Your task to perform on an android device: Show me popular videos on Youtube Image 0: 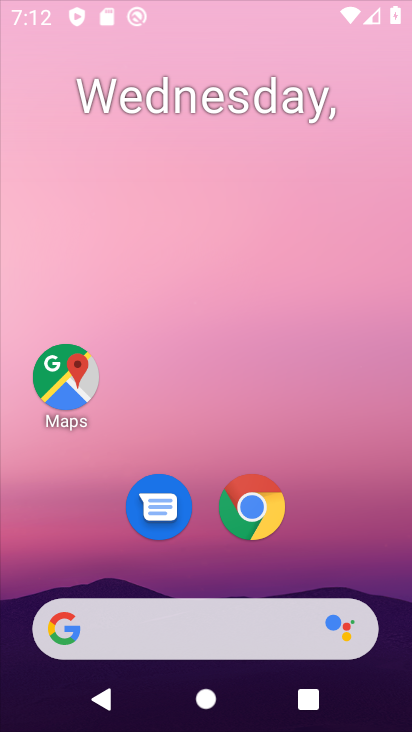
Step 0: drag from (220, 377) to (187, 171)
Your task to perform on an android device: Show me popular videos on Youtube Image 1: 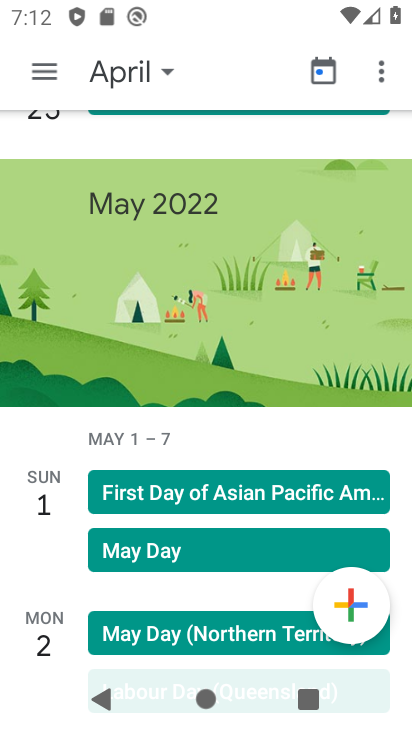
Step 1: press home button
Your task to perform on an android device: Show me popular videos on Youtube Image 2: 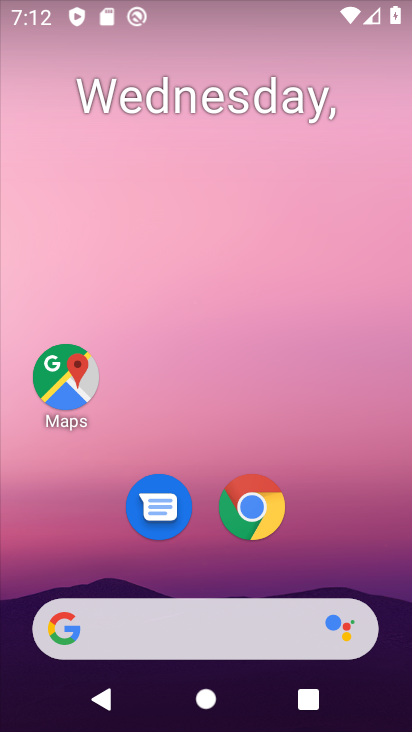
Step 2: drag from (255, 641) to (217, 209)
Your task to perform on an android device: Show me popular videos on Youtube Image 3: 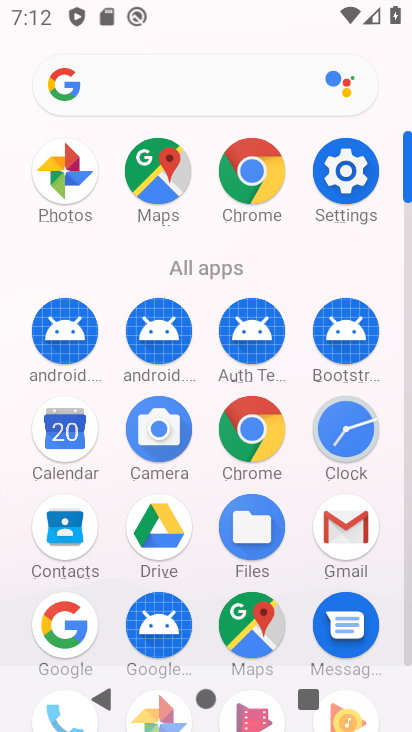
Step 3: drag from (226, 541) to (249, 309)
Your task to perform on an android device: Show me popular videos on Youtube Image 4: 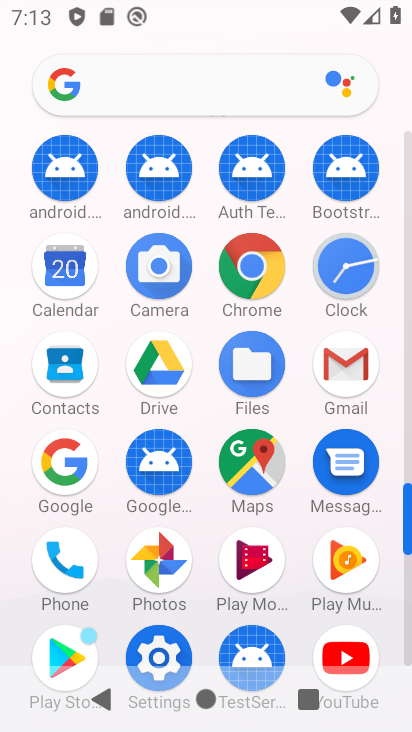
Step 4: click (328, 644)
Your task to perform on an android device: Show me popular videos on Youtube Image 5: 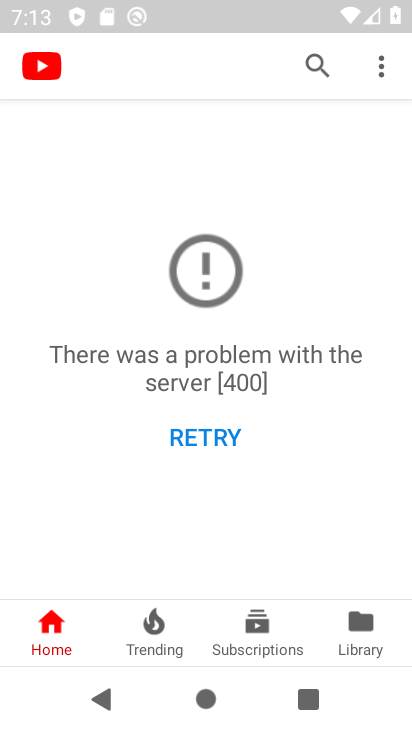
Step 5: click (318, 77)
Your task to perform on an android device: Show me popular videos on Youtube Image 6: 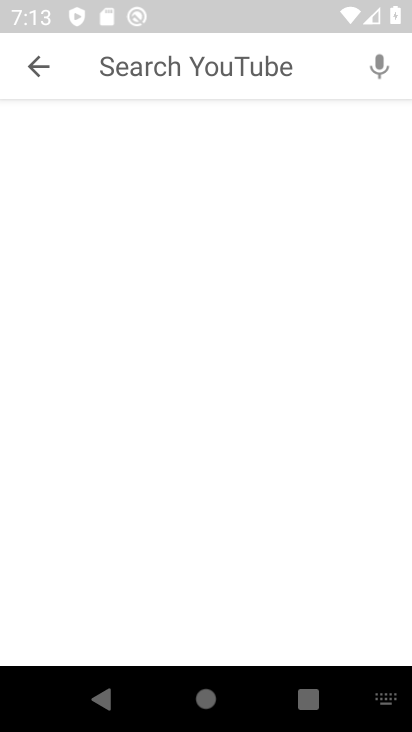
Step 6: click (381, 698)
Your task to perform on an android device: Show me popular videos on Youtube Image 7: 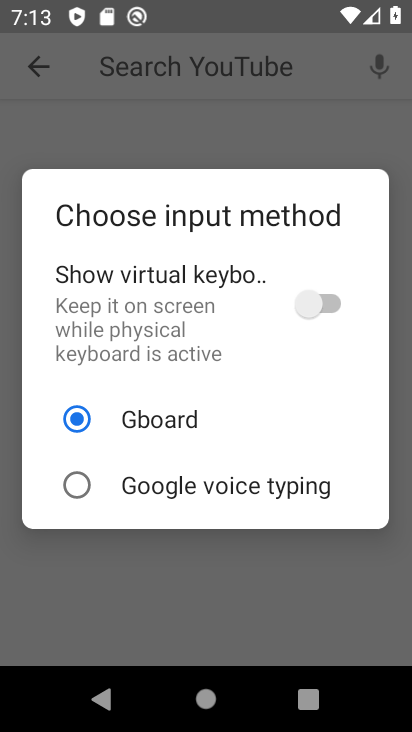
Step 7: click (337, 306)
Your task to perform on an android device: Show me popular videos on Youtube Image 8: 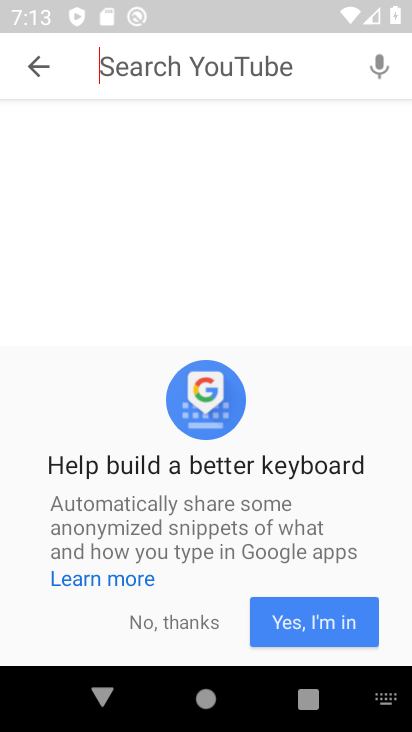
Step 8: click (284, 629)
Your task to perform on an android device: Show me popular videos on Youtube Image 9: 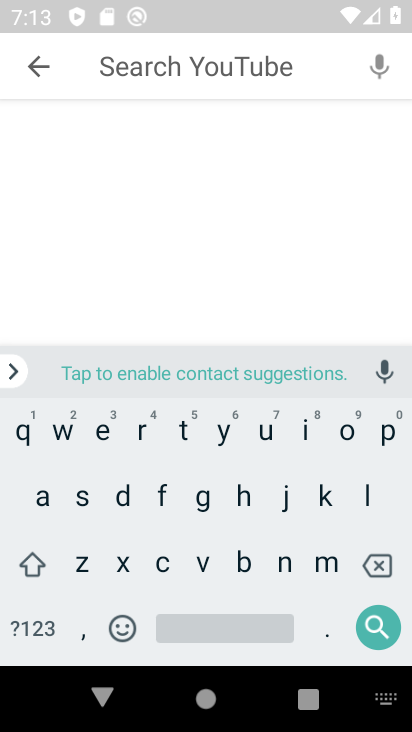
Step 9: click (383, 428)
Your task to perform on an android device: Show me popular videos on Youtube Image 10: 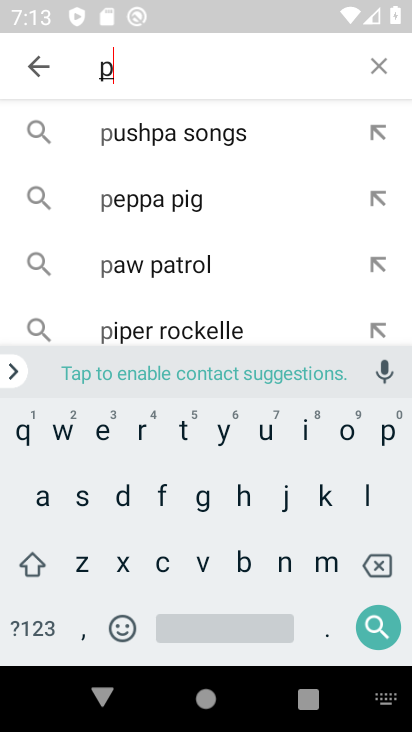
Step 10: click (343, 435)
Your task to perform on an android device: Show me popular videos on Youtube Image 11: 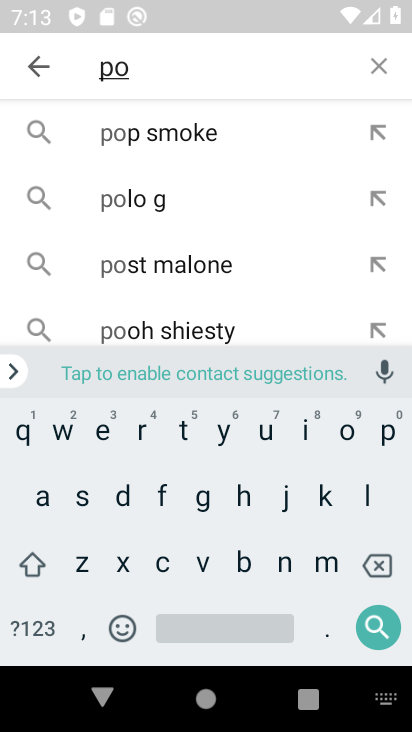
Step 11: click (380, 439)
Your task to perform on an android device: Show me popular videos on Youtube Image 12: 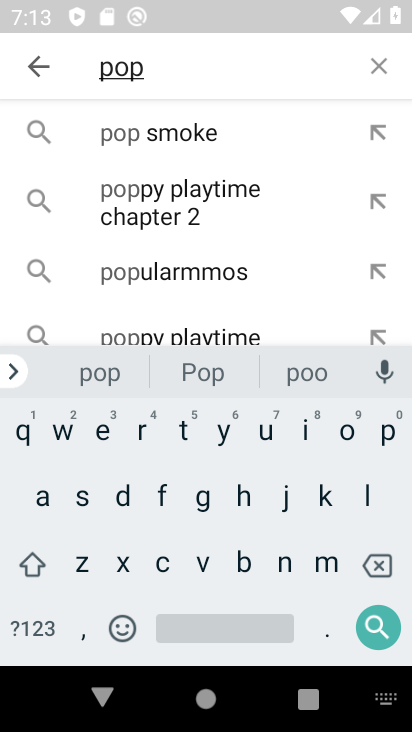
Step 12: click (265, 428)
Your task to perform on an android device: Show me popular videos on Youtube Image 13: 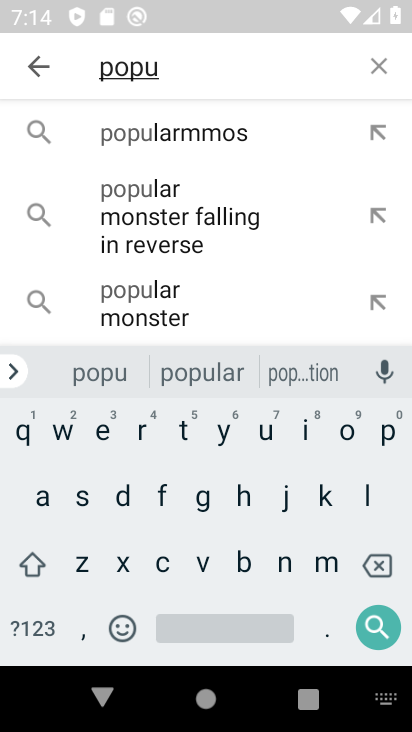
Step 13: click (368, 497)
Your task to perform on an android device: Show me popular videos on Youtube Image 14: 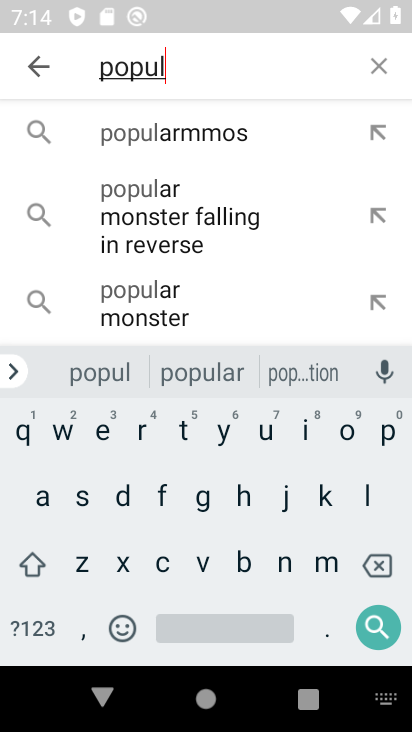
Step 14: click (41, 492)
Your task to perform on an android device: Show me popular videos on Youtube Image 15: 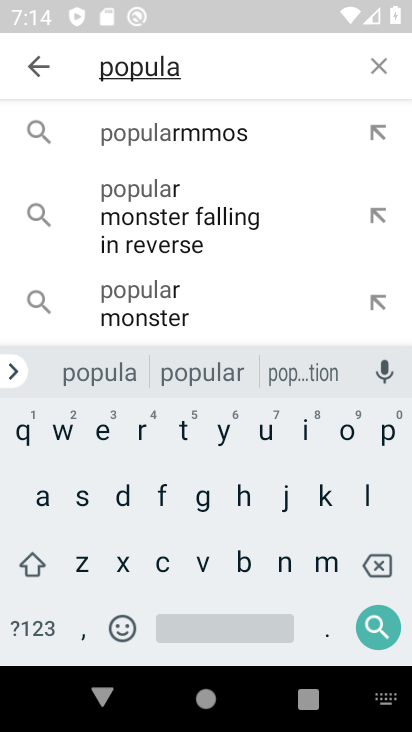
Step 15: click (190, 379)
Your task to perform on an android device: Show me popular videos on Youtube Image 16: 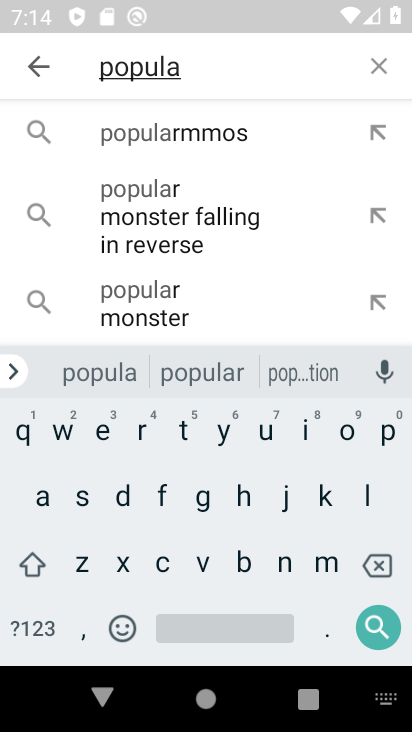
Step 16: click (136, 432)
Your task to perform on an android device: Show me popular videos on Youtube Image 17: 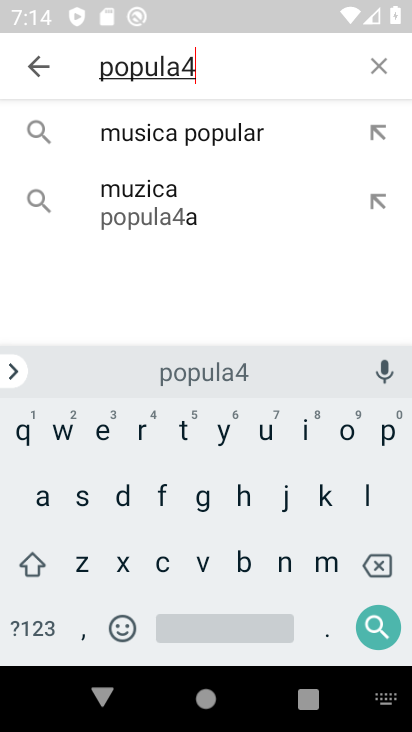
Step 17: click (374, 564)
Your task to perform on an android device: Show me popular videos on Youtube Image 18: 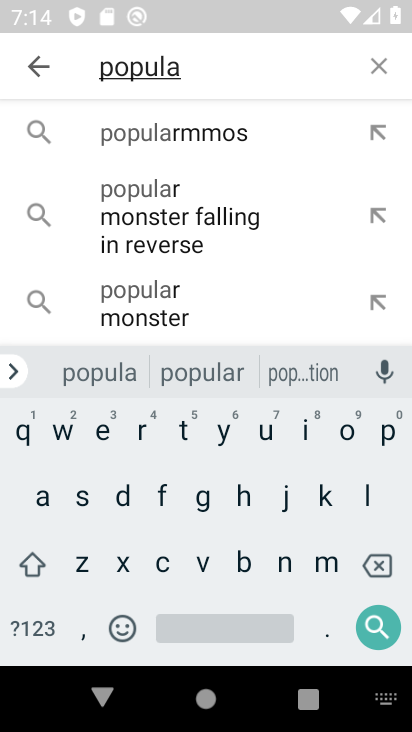
Step 18: click (141, 437)
Your task to perform on an android device: Show me popular videos on Youtube Image 19: 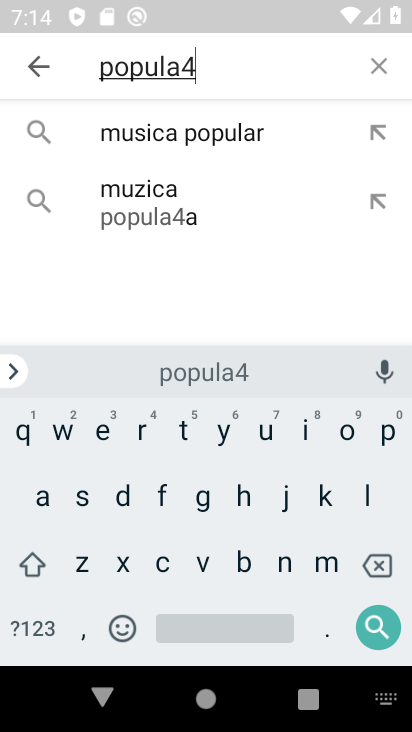
Step 19: click (385, 565)
Your task to perform on an android device: Show me popular videos on Youtube Image 20: 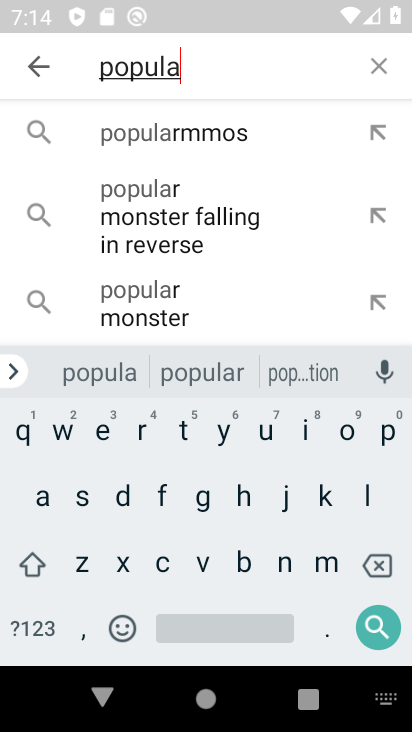
Step 20: click (140, 443)
Your task to perform on an android device: Show me popular videos on Youtube Image 21: 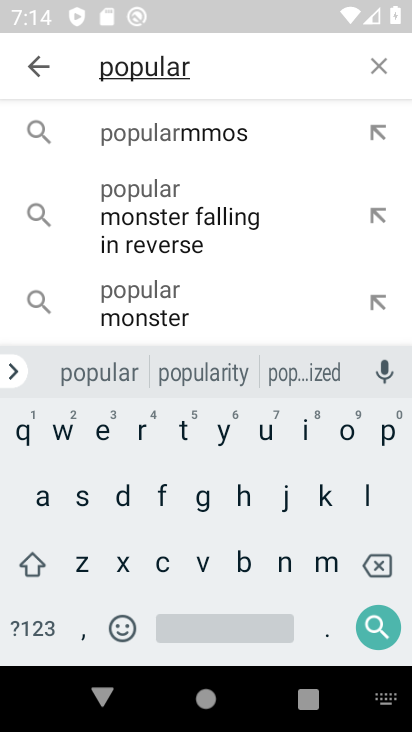
Step 21: click (201, 625)
Your task to perform on an android device: Show me popular videos on Youtube Image 22: 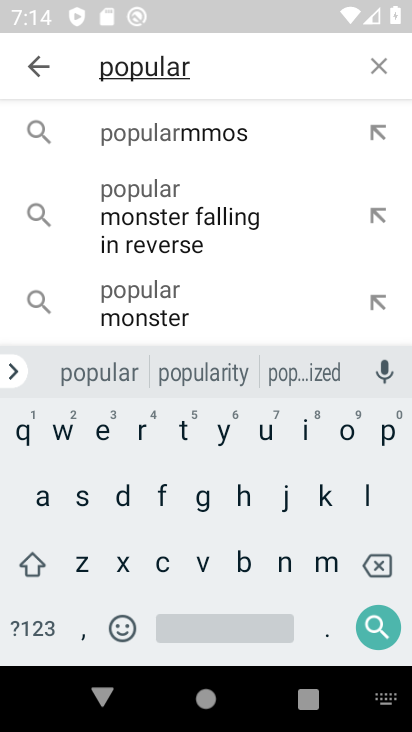
Step 22: click (203, 564)
Your task to perform on an android device: Show me popular videos on Youtube Image 23: 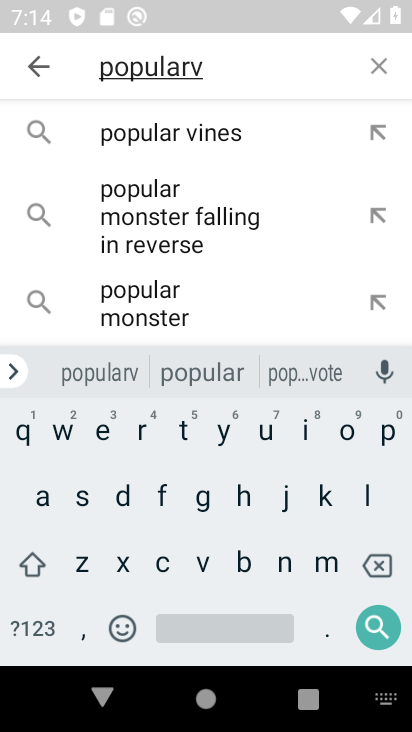
Step 23: click (382, 564)
Your task to perform on an android device: Show me popular videos on Youtube Image 24: 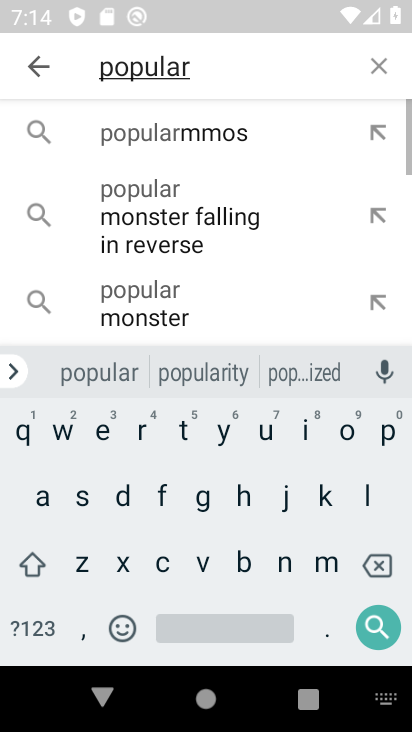
Step 24: click (225, 614)
Your task to perform on an android device: Show me popular videos on Youtube Image 25: 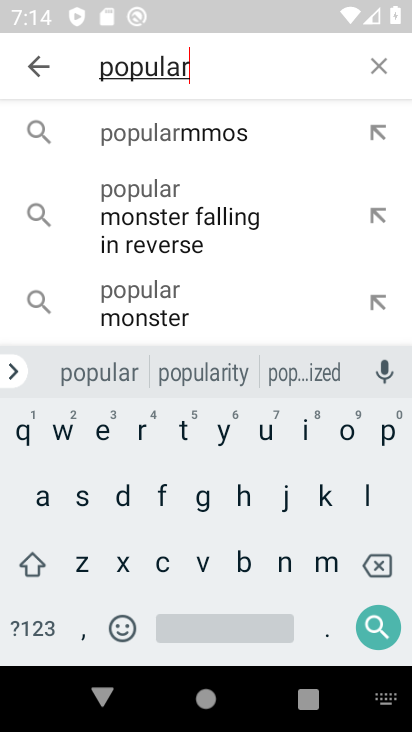
Step 25: click (219, 617)
Your task to perform on an android device: Show me popular videos on Youtube Image 26: 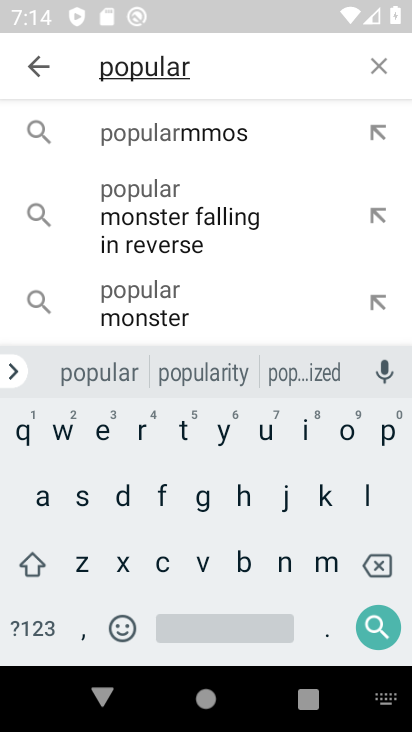
Step 26: click (186, 640)
Your task to perform on an android device: Show me popular videos on Youtube Image 27: 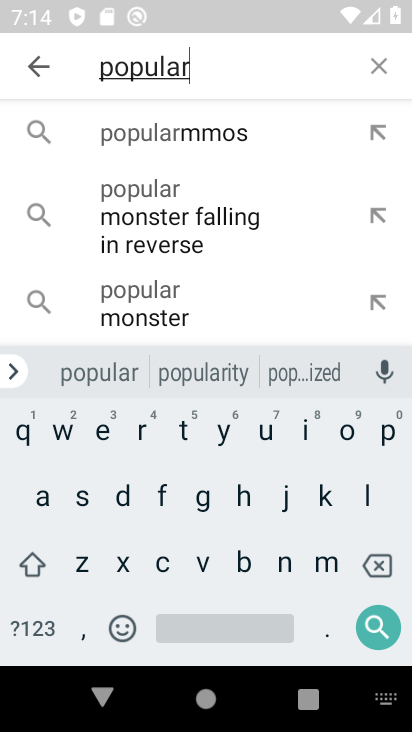
Step 27: click (203, 567)
Your task to perform on an android device: Show me popular videos on Youtube Image 28: 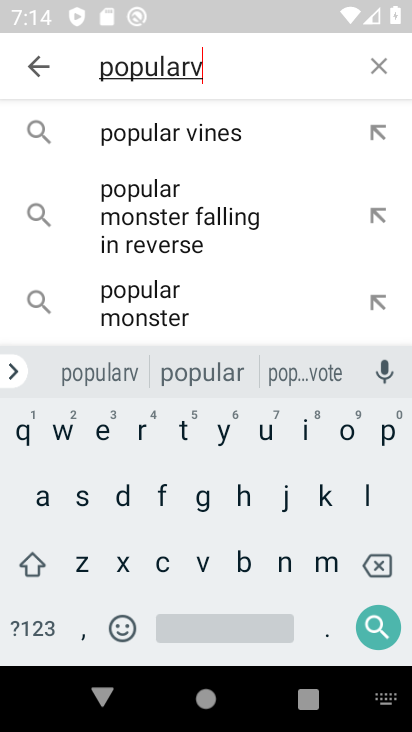
Step 28: click (375, 563)
Your task to perform on an android device: Show me popular videos on Youtube Image 29: 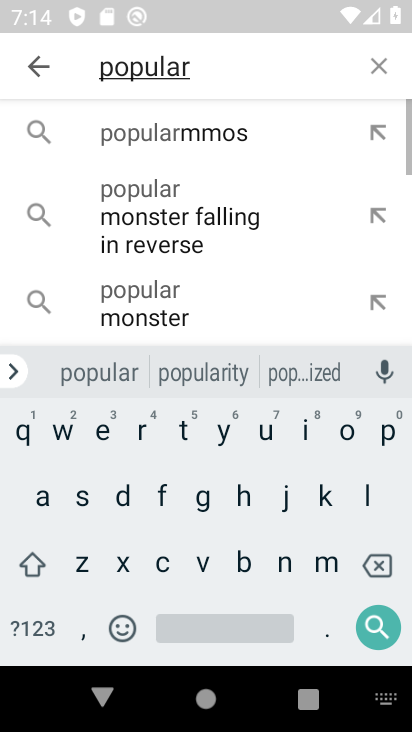
Step 29: drag from (250, 333) to (244, 64)
Your task to perform on an android device: Show me popular videos on Youtube Image 30: 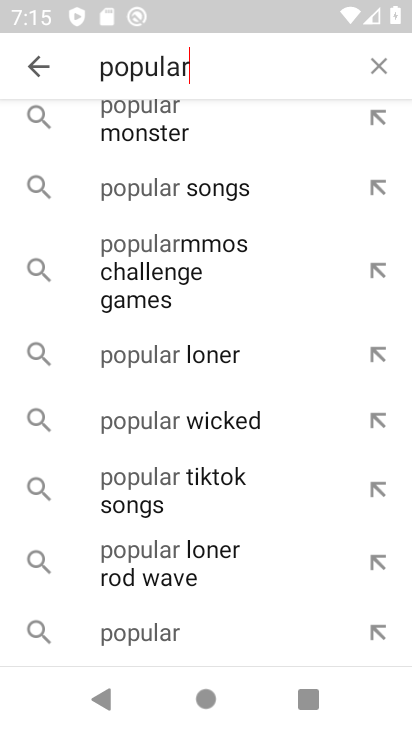
Step 30: drag from (116, 485) to (123, 312)
Your task to perform on an android device: Show me popular videos on Youtube Image 31: 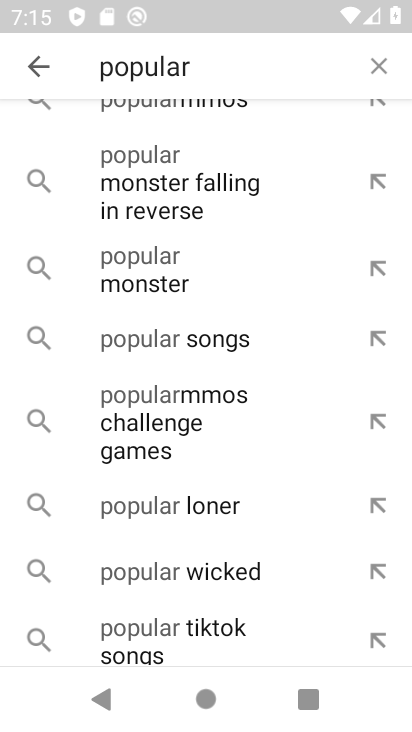
Step 31: click (220, 76)
Your task to perform on an android device: Show me popular videos on Youtube Image 32: 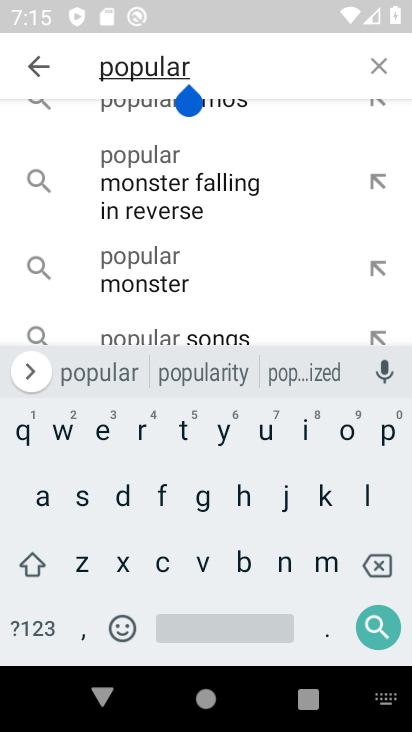
Step 32: click (217, 626)
Your task to perform on an android device: Show me popular videos on Youtube Image 33: 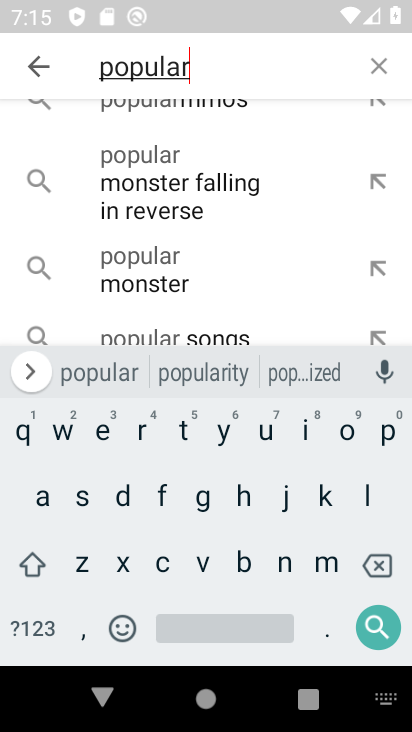
Step 33: click (208, 630)
Your task to perform on an android device: Show me popular videos on Youtube Image 34: 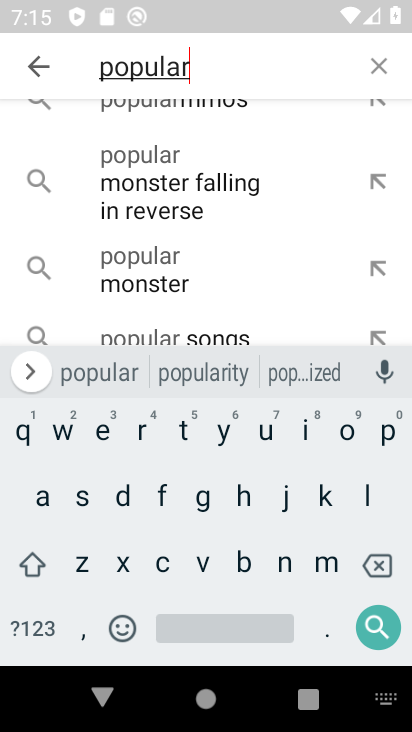
Step 34: click (172, 624)
Your task to perform on an android device: Show me popular videos on Youtube Image 35: 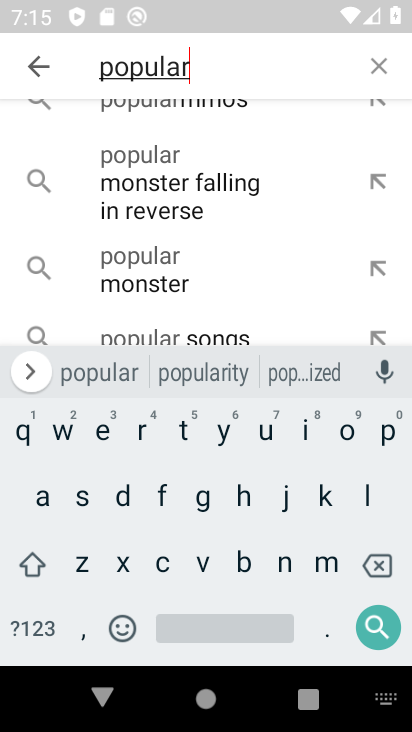
Step 35: click (97, 377)
Your task to perform on an android device: Show me popular videos on Youtube Image 36: 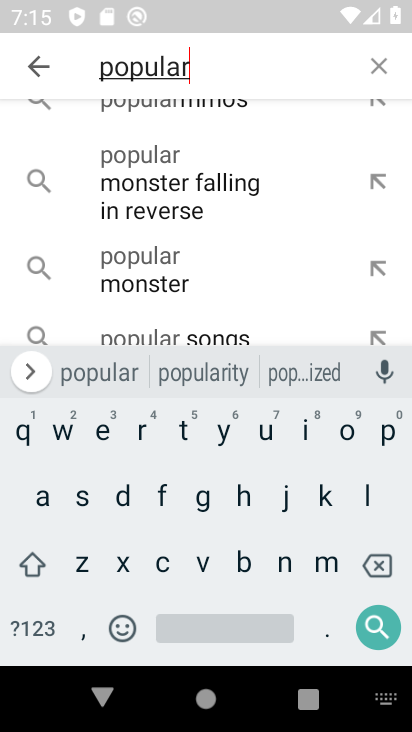
Step 36: click (202, 563)
Your task to perform on an android device: Show me popular videos on Youtube Image 37: 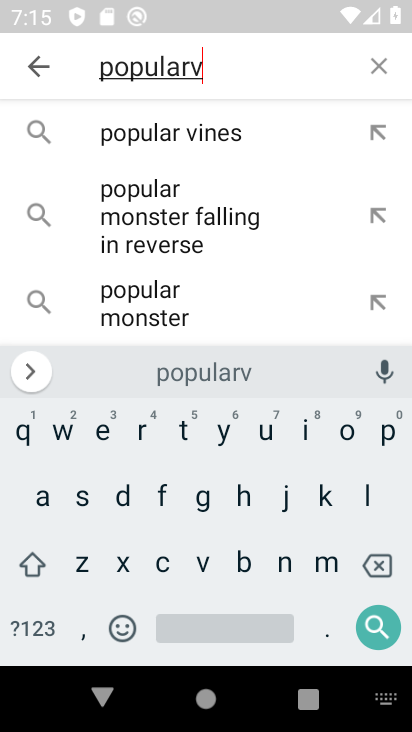
Step 37: click (312, 432)
Your task to perform on an android device: Show me popular videos on Youtube Image 38: 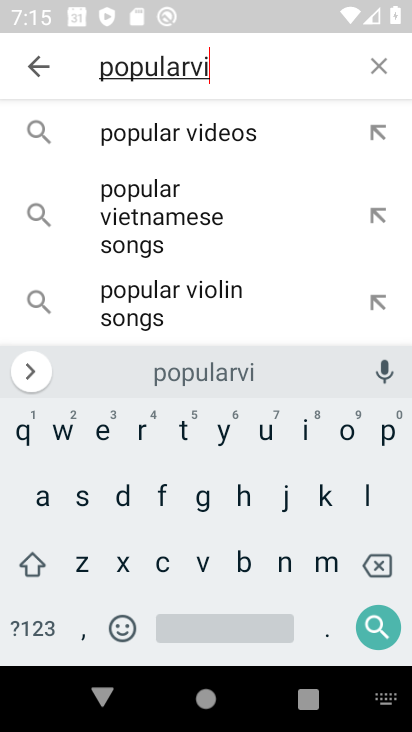
Step 38: click (208, 131)
Your task to perform on an android device: Show me popular videos on Youtube Image 39: 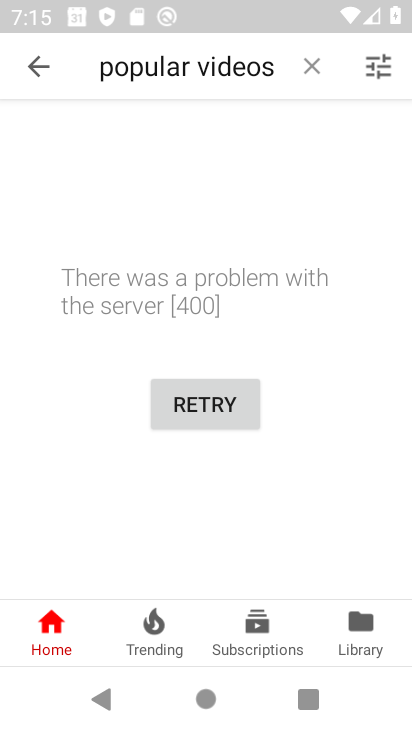
Step 39: task complete